Your task to perform on an android device: add a label to a message in the gmail app Image 0: 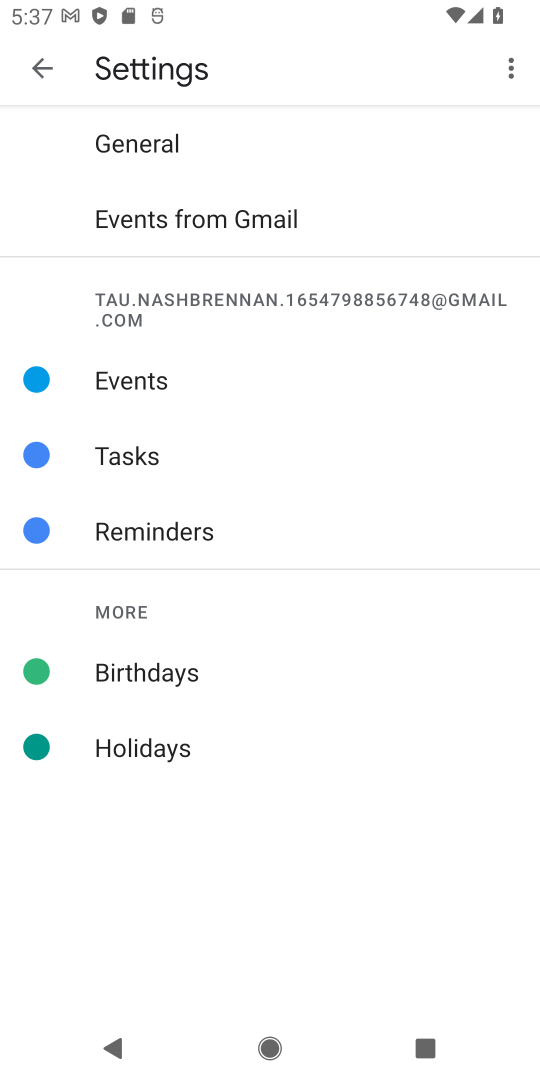
Step 0: press back button
Your task to perform on an android device: add a label to a message in the gmail app Image 1: 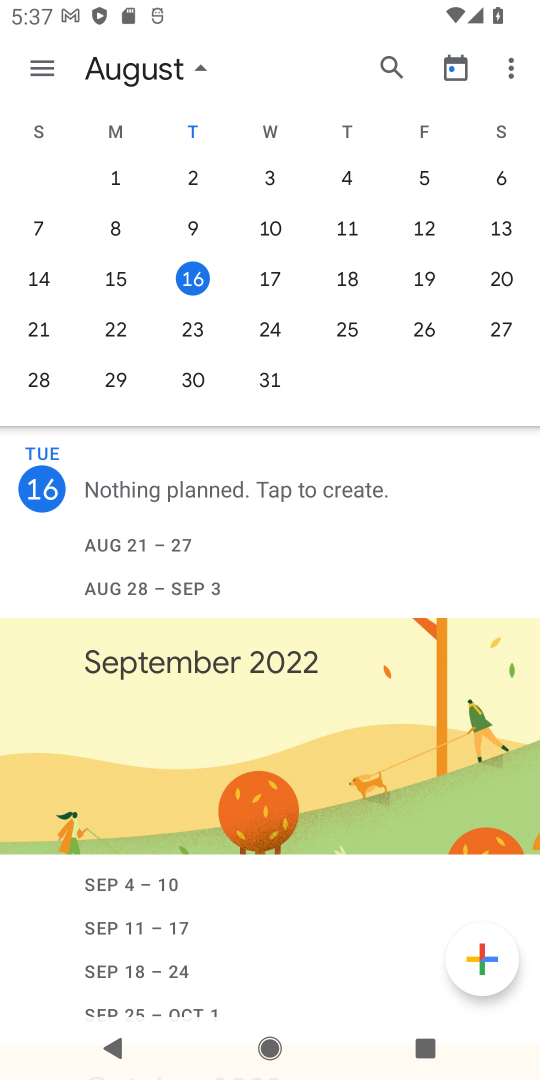
Step 1: press back button
Your task to perform on an android device: add a label to a message in the gmail app Image 2: 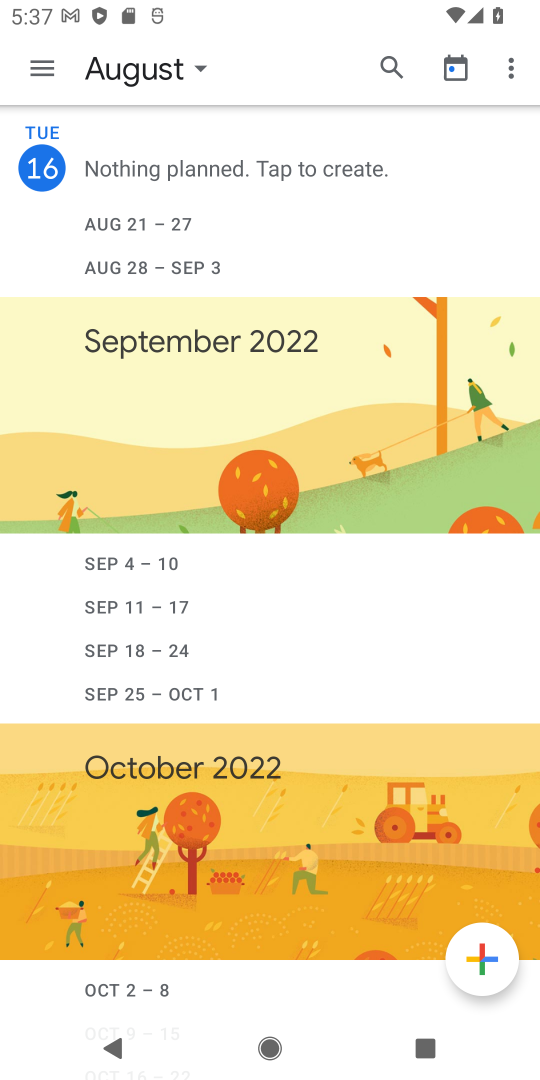
Step 2: press back button
Your task to perform on an android device: add a label to a message in the gmail app Image 3: 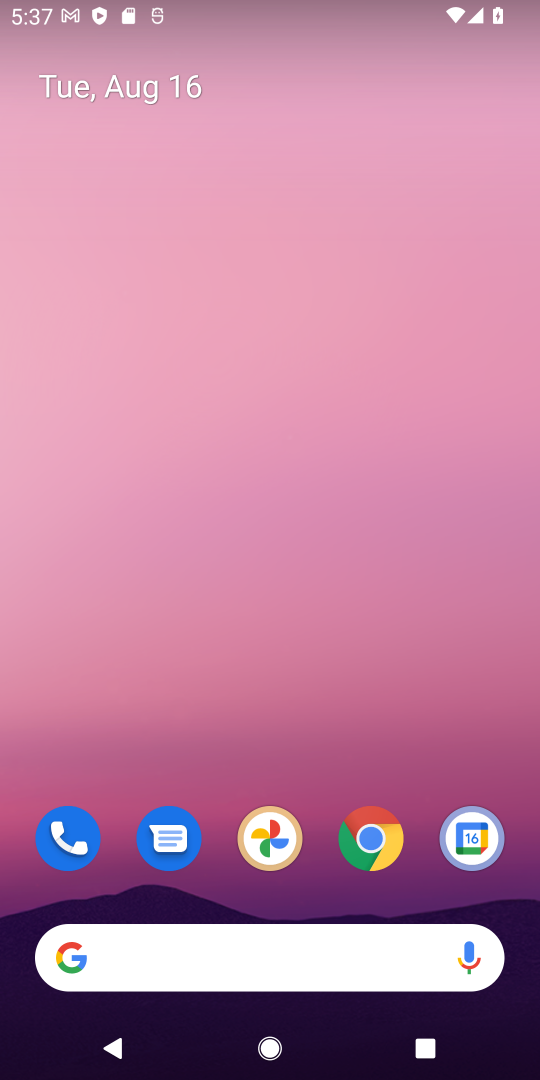
Step 3: drag from (248, 890) to (405, 62)
Your task to perform on an android device: add a label to a message in the gmail app Image 4: 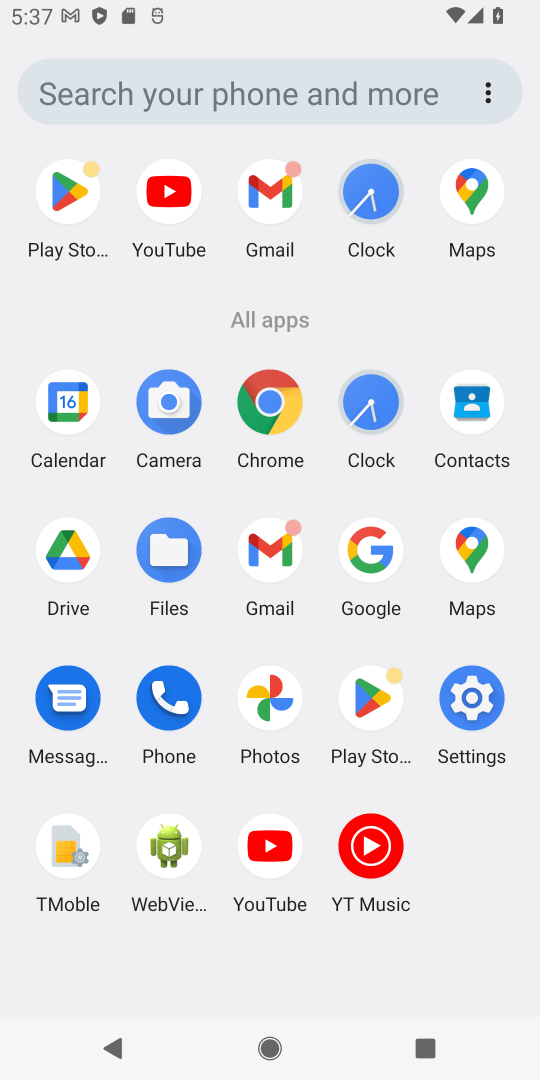
Step 4: click (270, 194)
Your task to perform on an android device: add a label to a message in the gmail app Image 5: 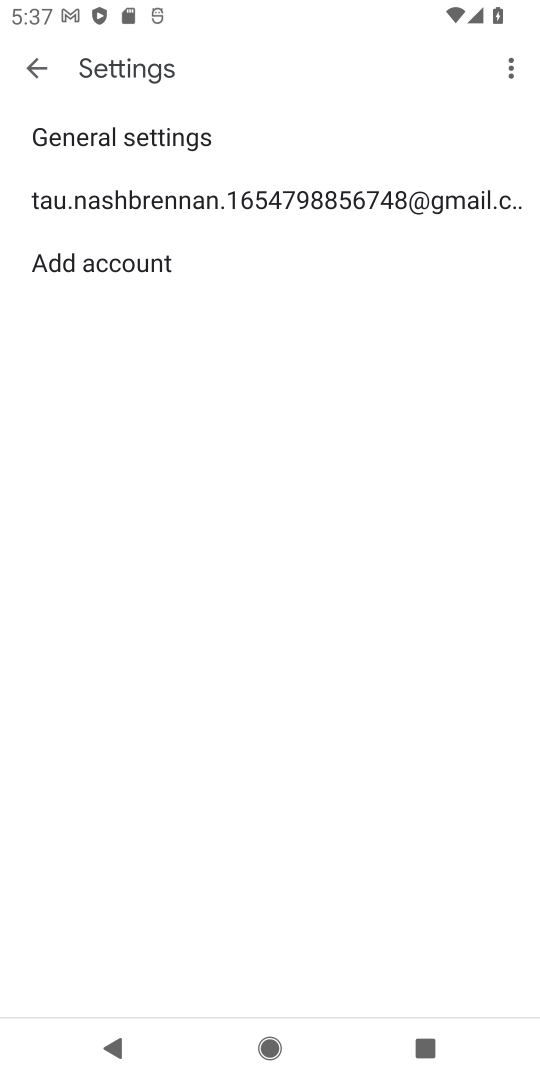
Step 5: press back button
Your task to perform on an android device: add a label to a message in the gmail app Image 6: 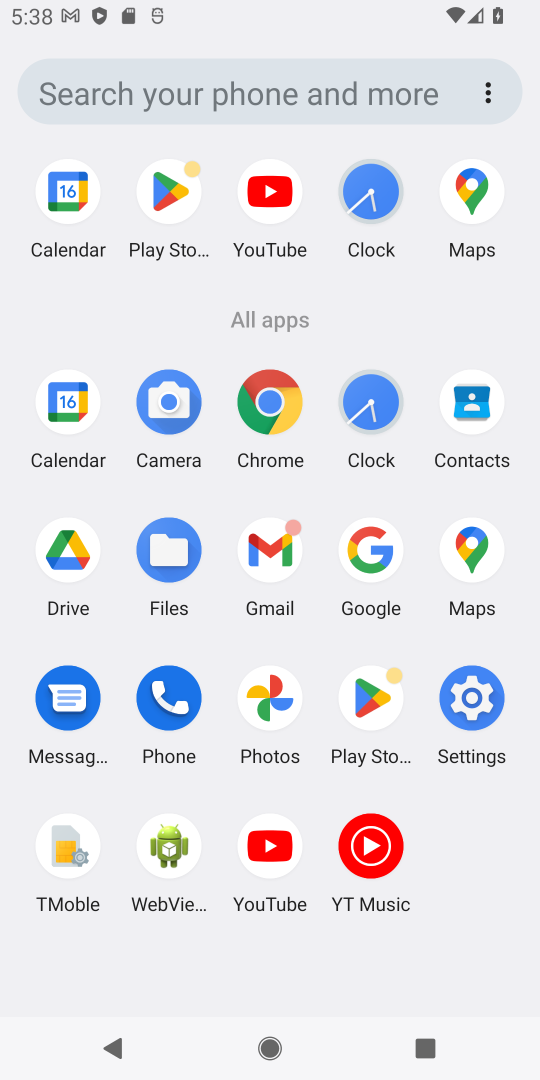
Step 6: click (287, 533)
Your task to perform on an android device: add a label to a message in the gmail app Image 7: 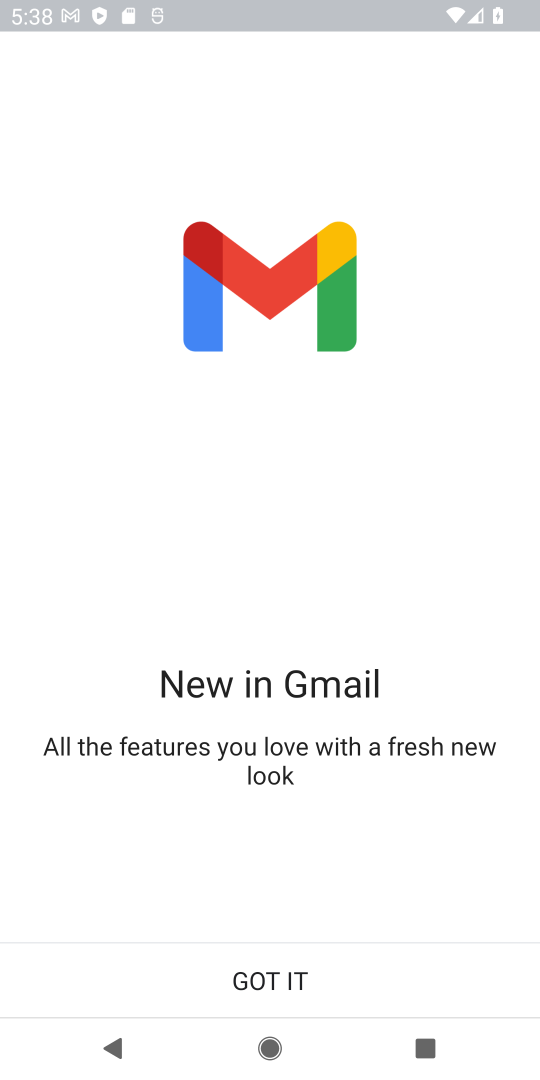
Step 7: click (240, 977)
Your task to perform on an android device: add a label to a message in the gmail app Image 8: 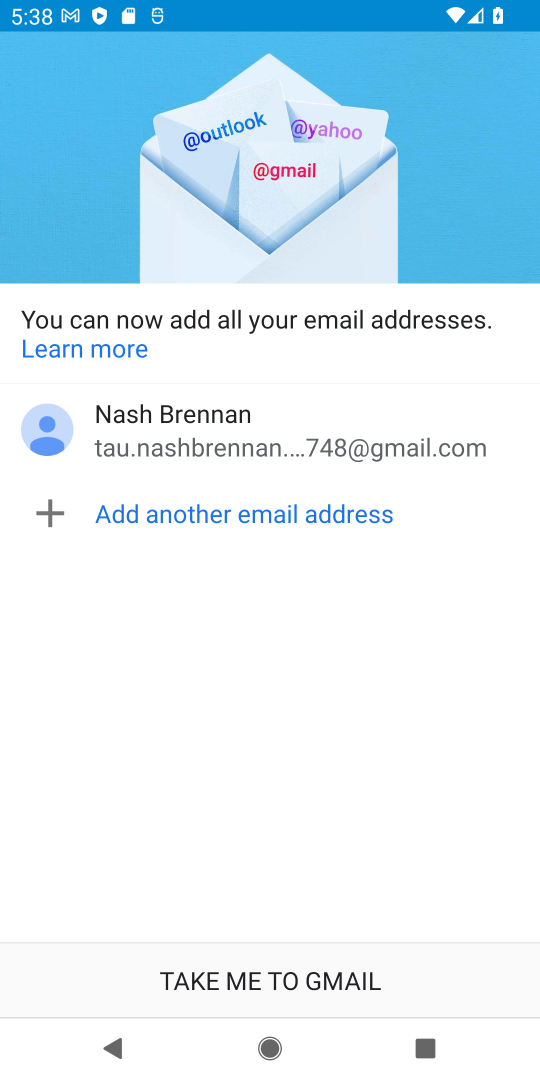
Step 8: click (239, 978)
Your task to perform on an android device: add a label to a message in the gmail app Image 9: 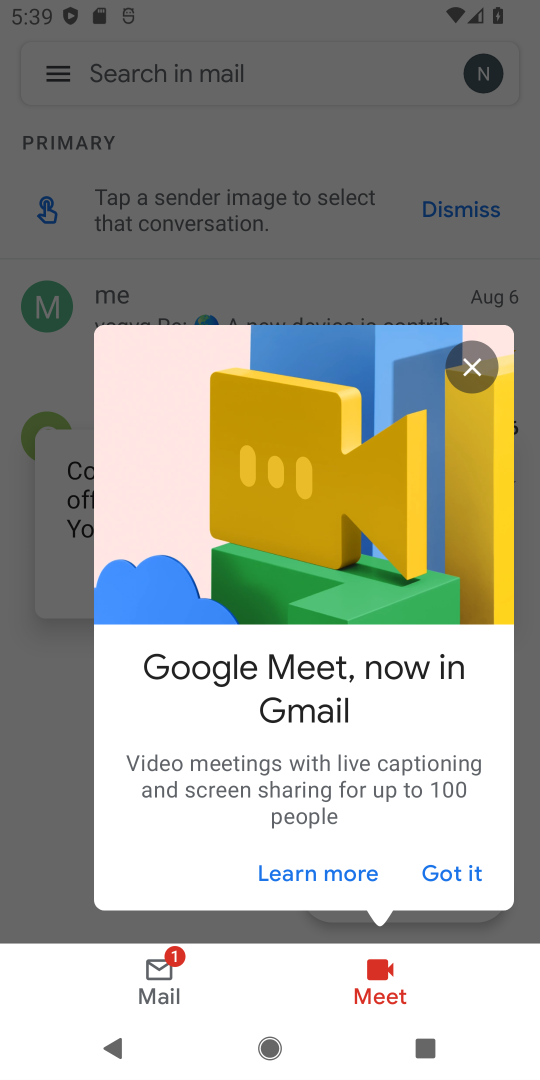
Step 9: click (463, 861)
Your task to perform on an android device: add a label to a message in the gmail app Image 10: 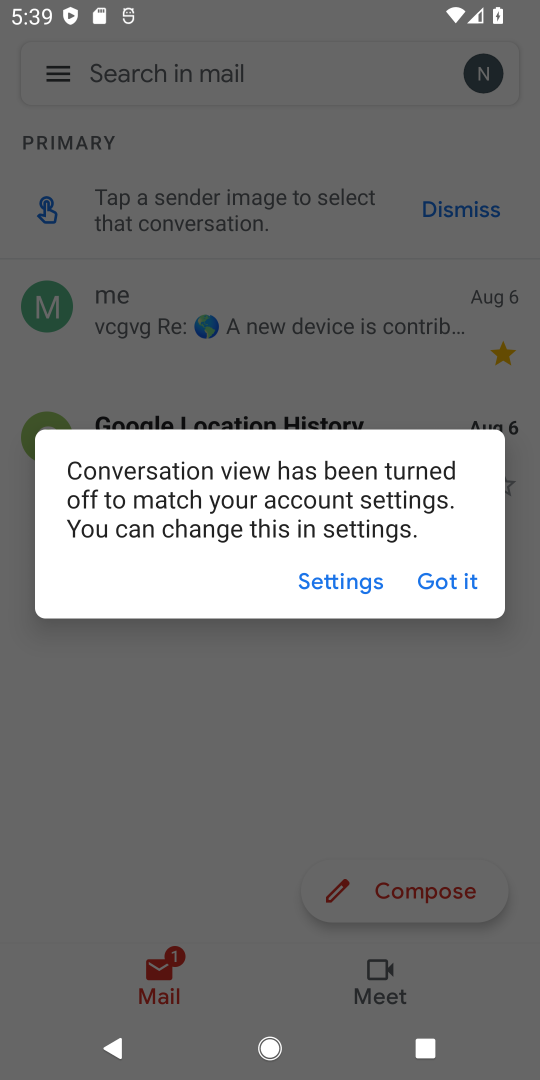
Step 10: click (453, 589)
Your task to perform on an android device: add a label to a message in the gmail app Image 11: 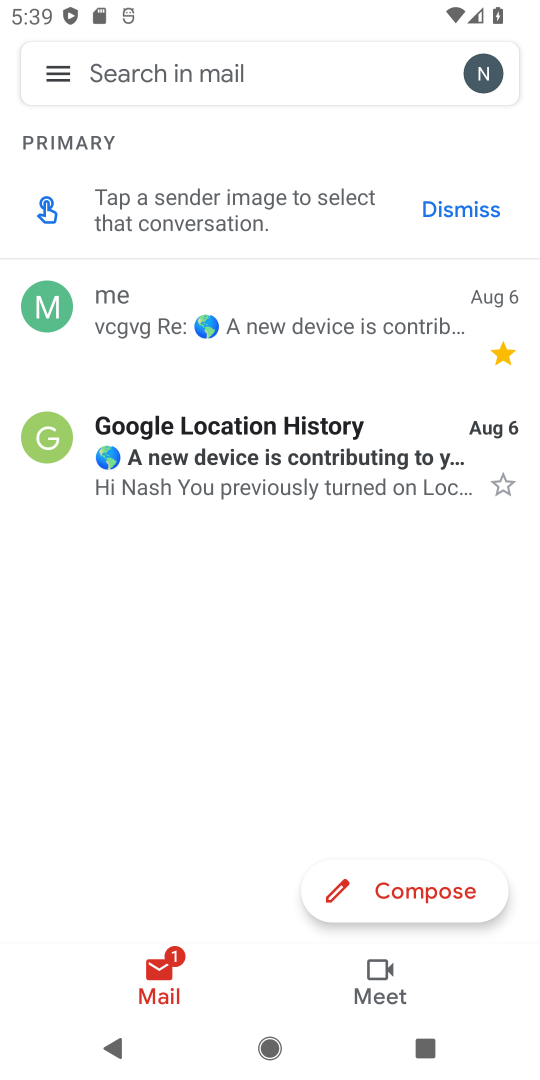
Step 11: click (289, 470)
Your task to perform on an android device: add a label to a message in the gmail app Image 12: 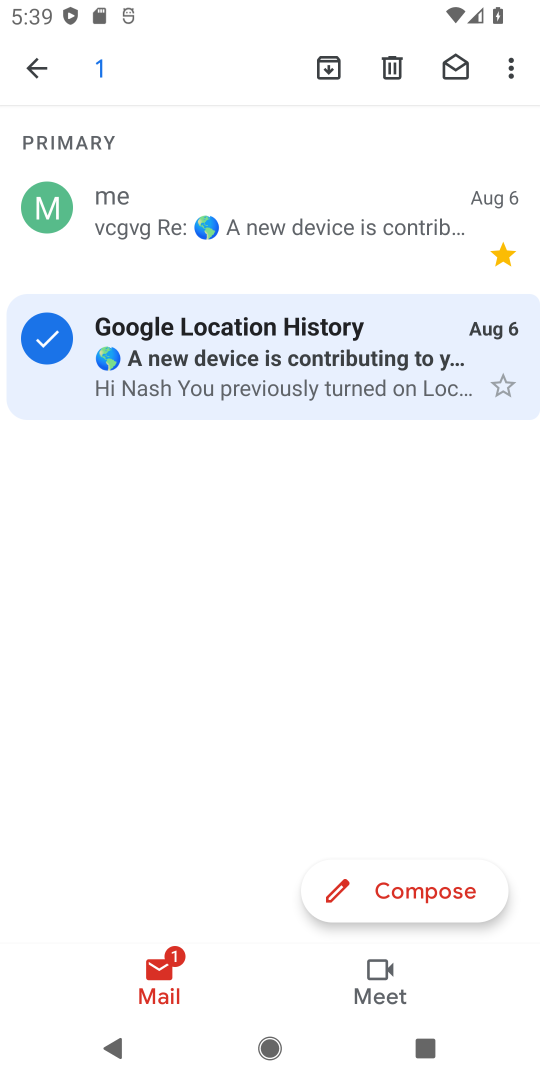
Step 12: click (511, 69)
Your task to perform on an android device: add a label to a message in the gmail app Image 13: 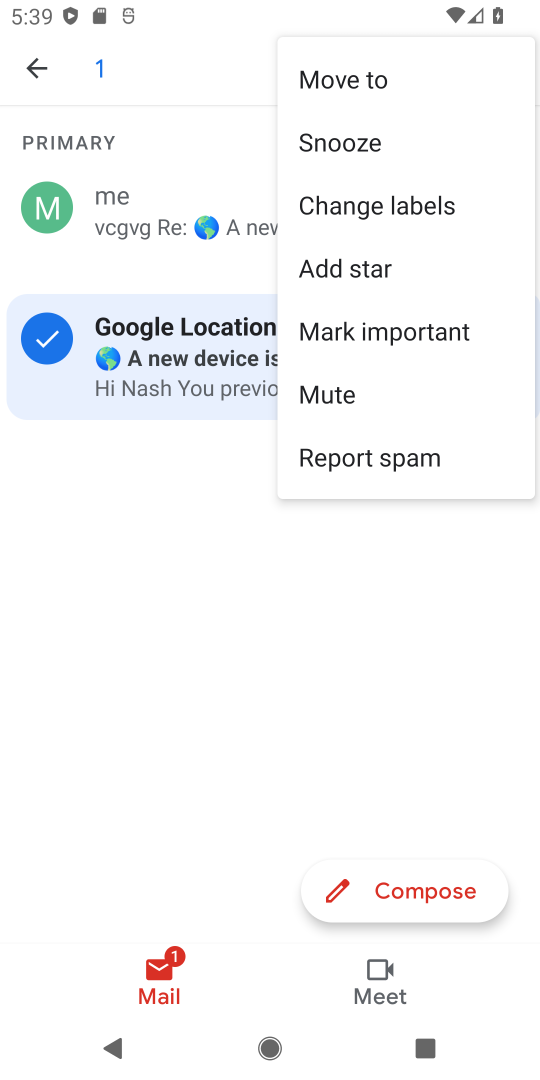
Step 13: click (368, 207)
Your task to perform on an android device: add a label to a message in the gmail app Image 14: 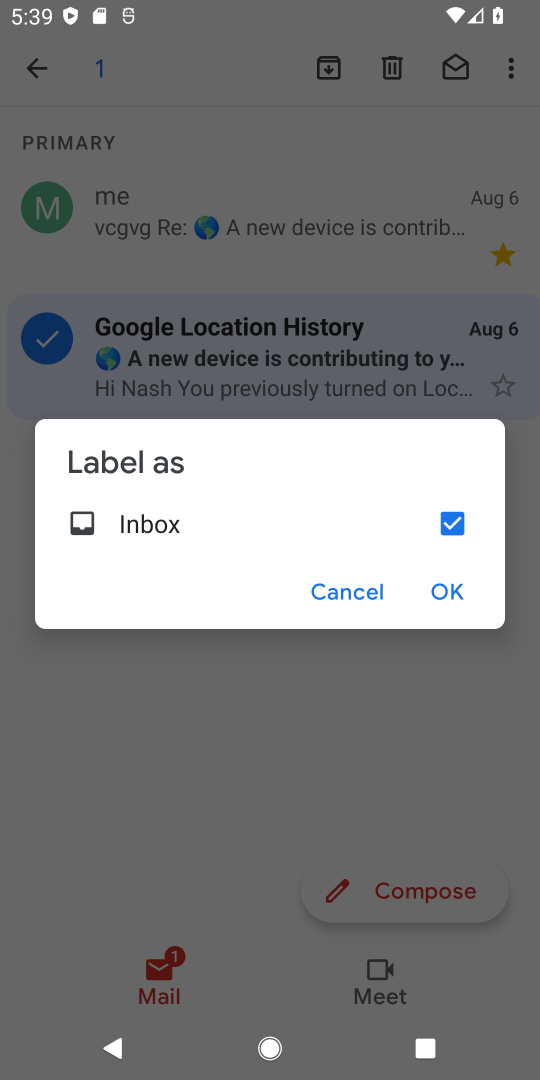
Step 14: click (454, 589)
Your task to perform on an android device: add a label to a message in the gmail app Image 15: 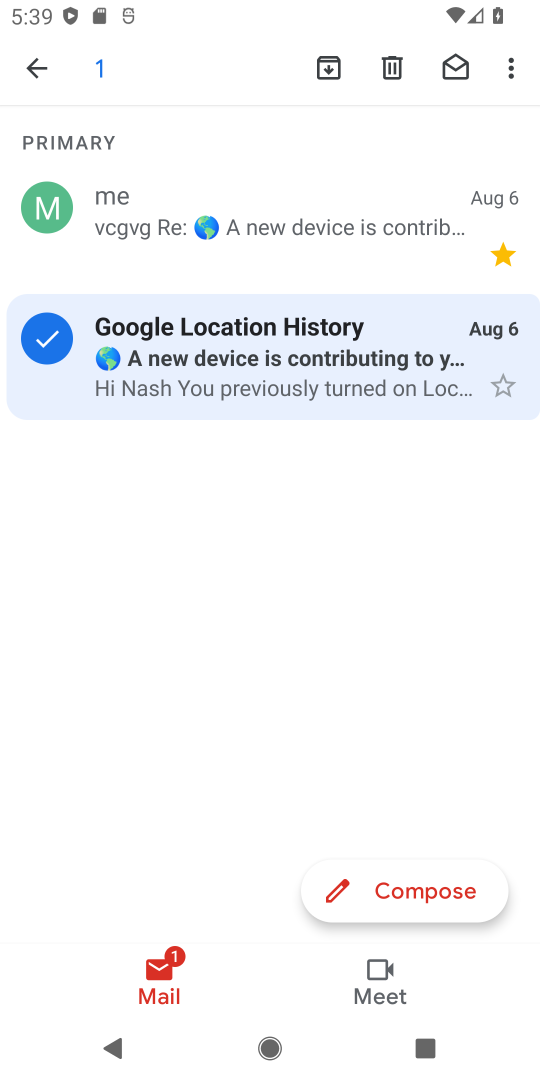
Step 15: task complete